Your task to perform on an android device: turn off priority inbox in the gmail app Image 0: 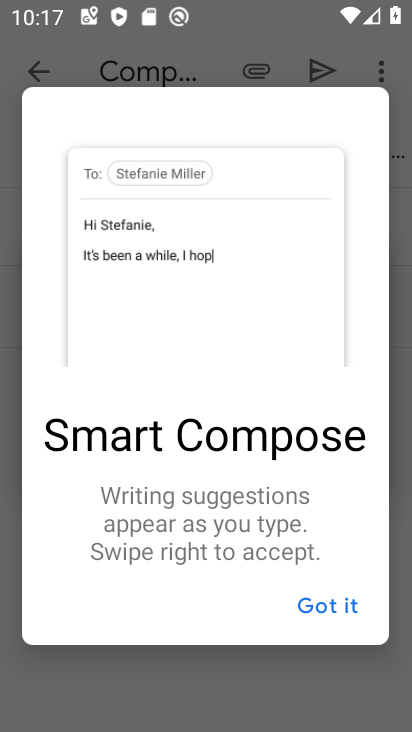
Step 0: press home button
Your task to perform on an android device: turn off priority inbox in the gmail app Image 1: 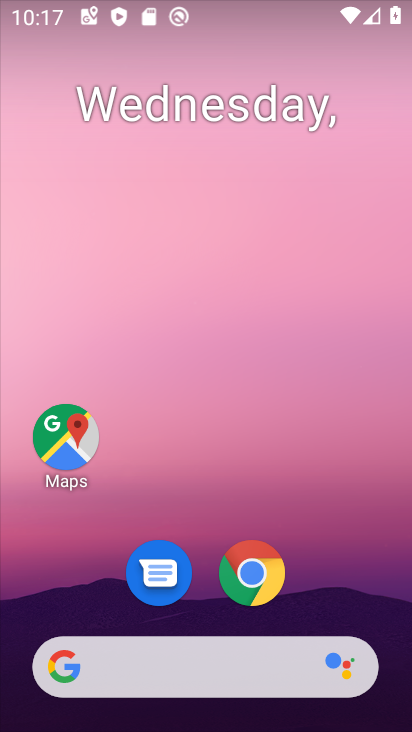
Step 1: drag from (388, 556) to (388, 19)
Your task to perform on an android device: turn off priority inbox in the gmail app Image 2: 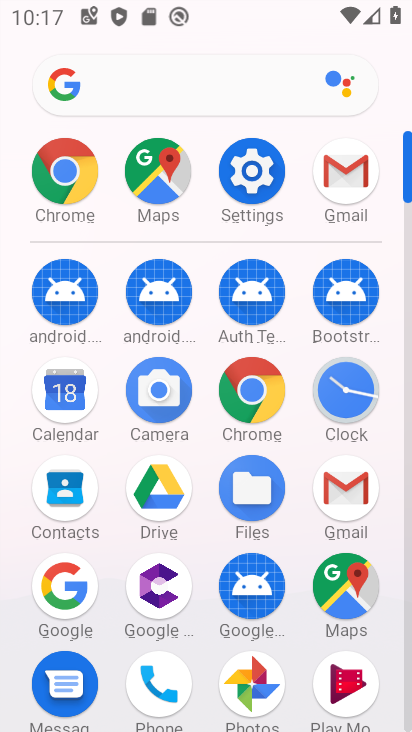
Step 2: click (351, 181)
Your task to perform on an android device: turn off priority inbox in the gmail app Image 3: 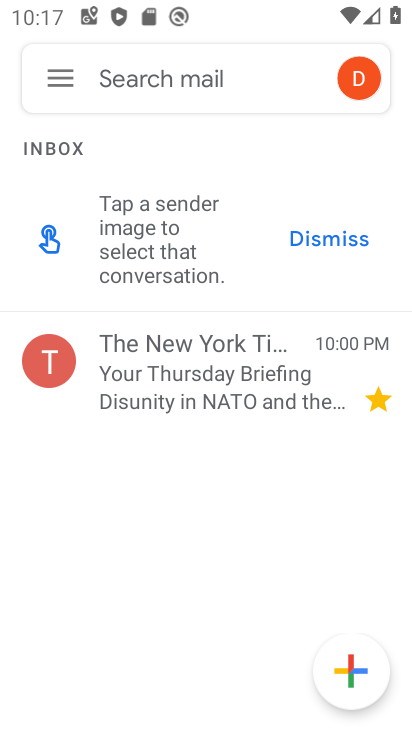
Step 3: click (67, 85)
Your task to perform on an android device: turn off priority inbox in the gmail app Image 4: 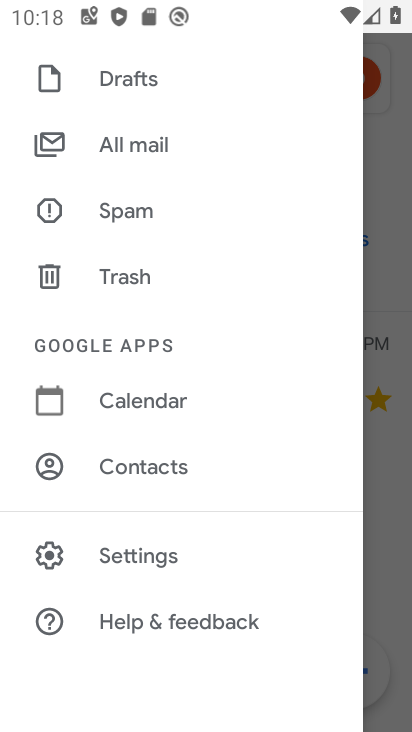
Step 4: click (170, 561)
Your task to perform on an android device: turn off priority inbox in the gmail app Image 5: 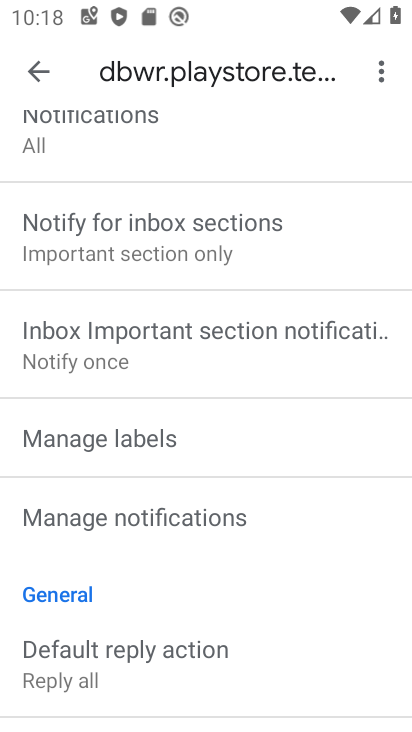
Step 5: drag from (370, 493) to (360, 201)
Your task to perform on an android device: turn off priority inbox in the gmail app Image 6: 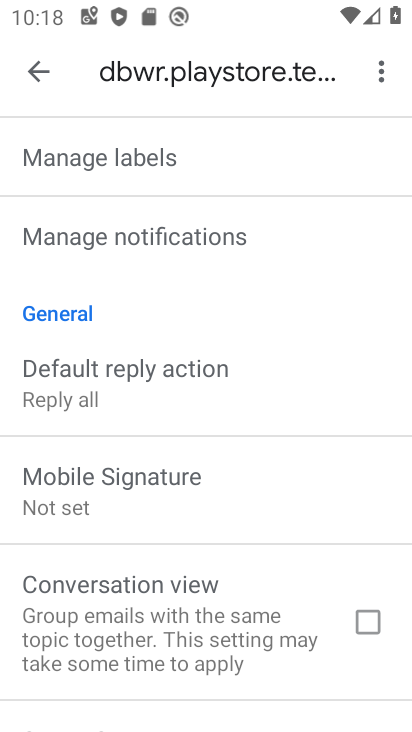
Step 6: drag from (367, 389) to (363, 232)
Your task to perform on an android device: turn off priority inbox in the gmail app Image 7: 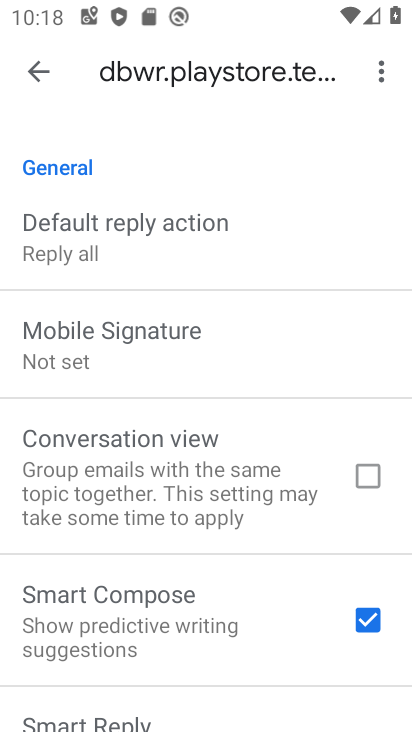
Step 7: drag from (349, 423) to (349, 272)
Your task to perform on an android device: turn off priority inbox in the gmail app Image 8: 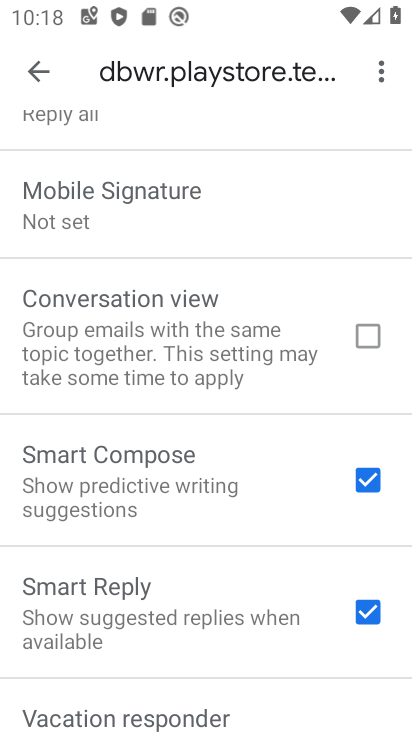
Step 8: drag from (327, 445) to (318, 285)
Your task to perform on an android device: turn off priority inbox in the gmail app Image 9: 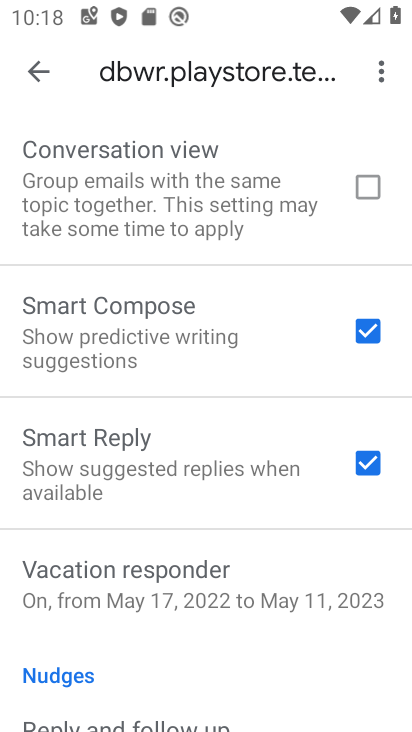
Step 9: drag from (323, 235) to (316, 352)
Your task to perform on an android device: turn off priority inbox in the gmail app Image 10: 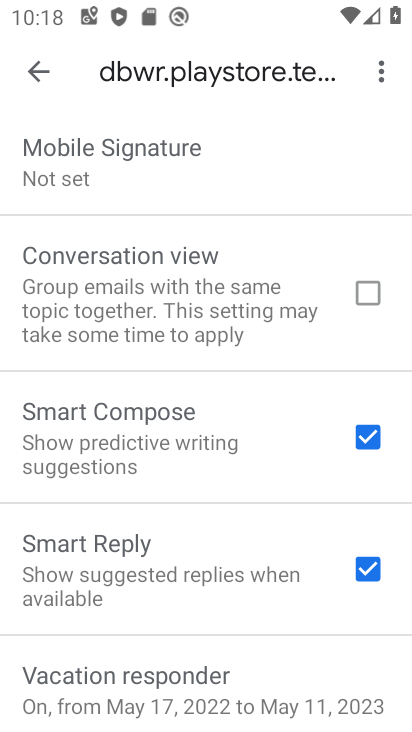
Step 10: drag from (319, 212) to (316, 321)
Your task to perform on an android device: turn off priority inbox in the gmail app Image 11: 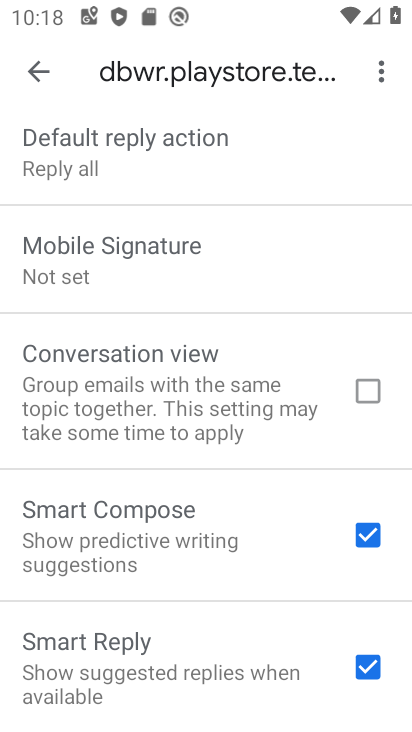
Step 11: drag from (326, 183) to (317, 327)
Your task to perform on an android device: turn off priority inbox in the gmail app Image 12: 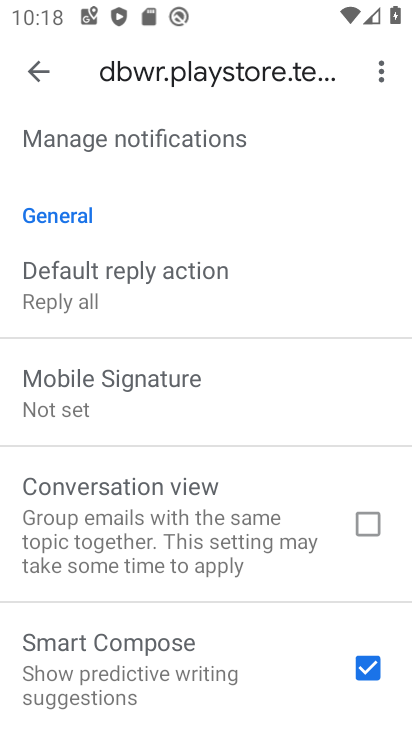
Step 12: drag from (330, 144) to (319, 303)
Your task to perform on an android device: turn off priority inbox in the gmail app Image 13: 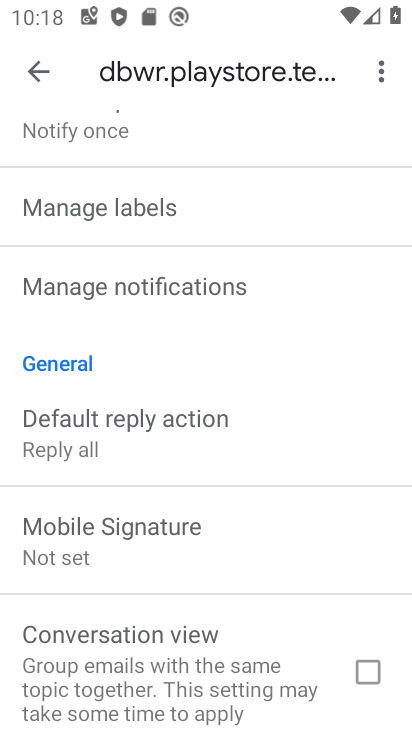
Step 13: drag from (319, 145) to (305, 282)
Your task to perform on an android device: turn off priority inbox in the gmail app Image 14: 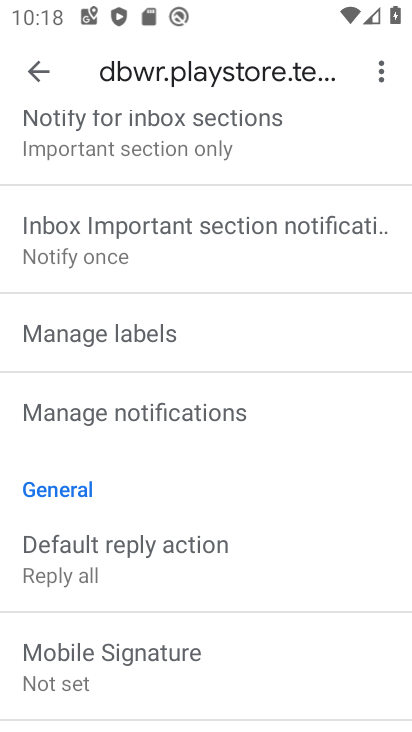
Step 14: drag from (316, 168) to (308, 299)
Your task to perform on an android device: turn off priority inbox in the gmail app Image 15: 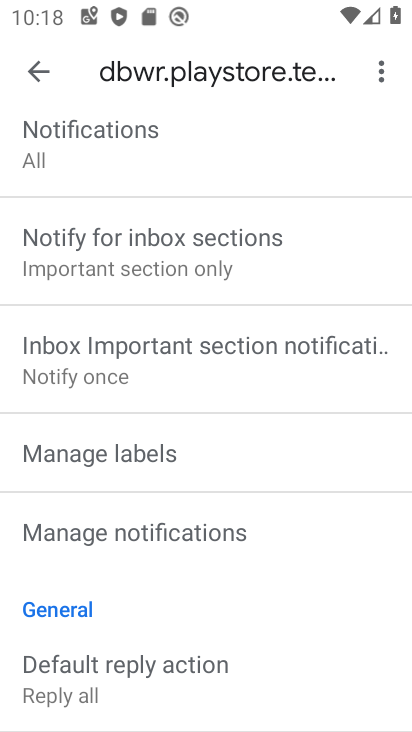
Step 15: drag from (320, 190) to (315, 311)
Your task to perform on an android device: turn off priority inbox in the gmail app Image 16: 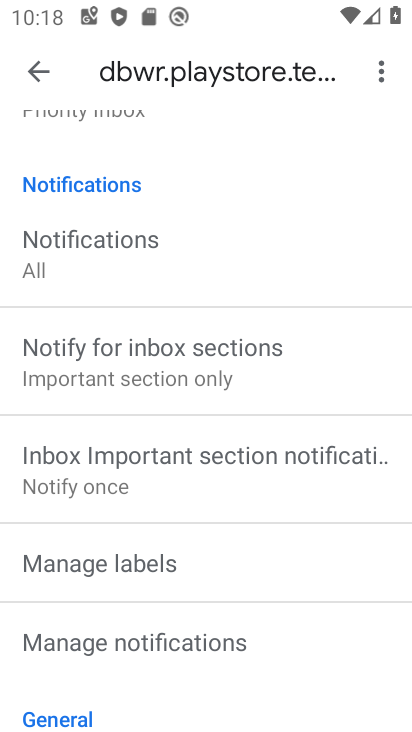
Step 16: drag from (323, 154) to (313, 304)
Your task to perform on an android device: turn off priority inbox in the gmail app Image 17: 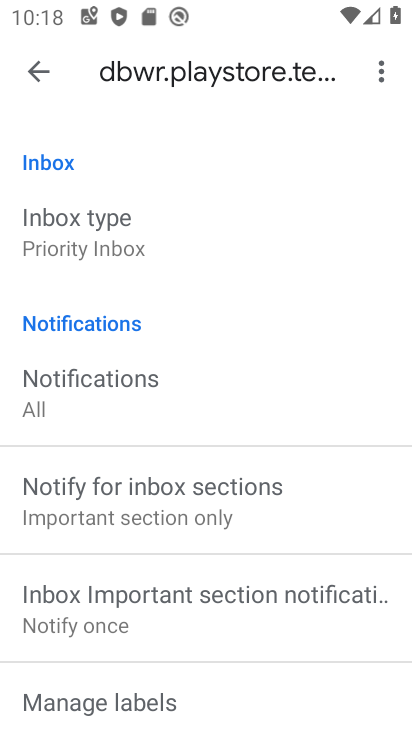
Step 17: click (123, 257)
Your task to perform on an android device: turn off priority inbox in the gmail app Image 18: 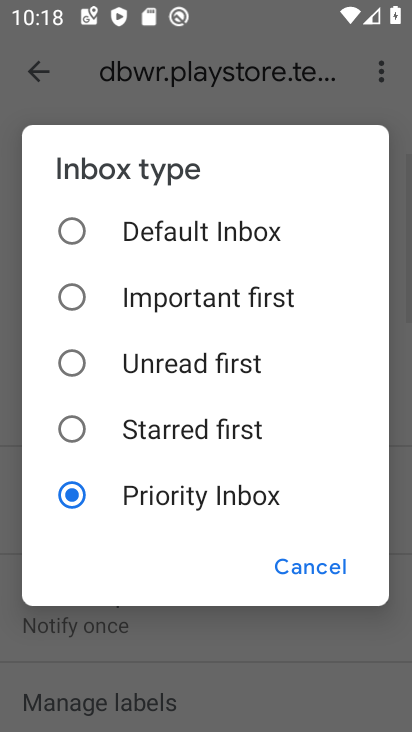
Step 18: click (150, 236)
Your task to perform on an android device: turn off priority inbox in the gmail app Image 19: 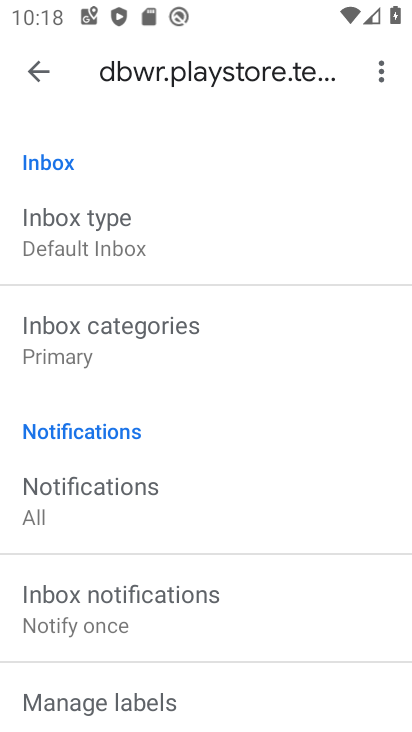
Step 19: task complete